Your task to perform on an android device: turn off javascript in the chrome app Image 0: 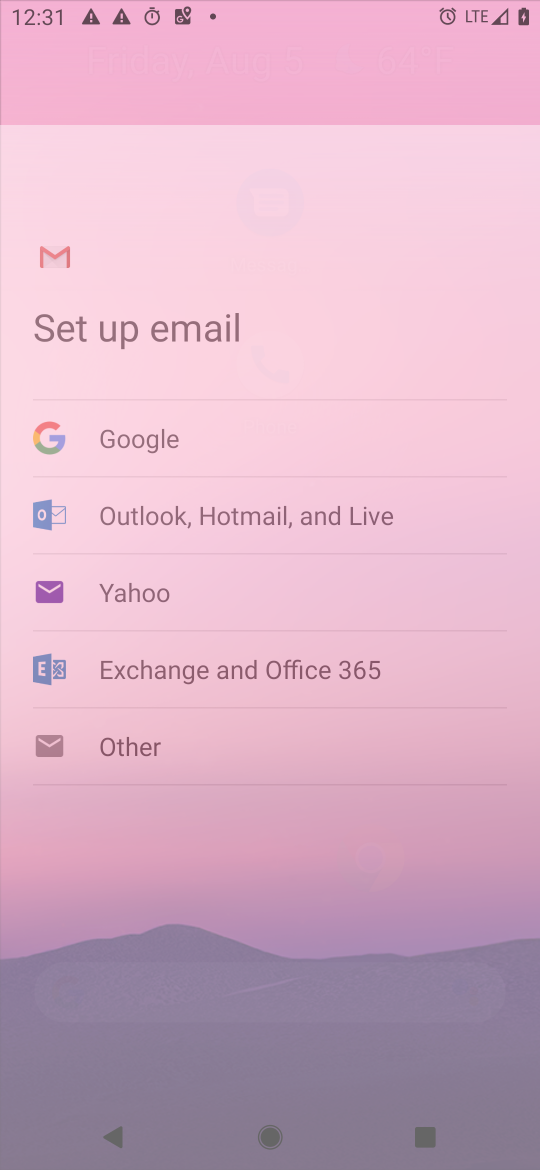
Step 0: click (358, 298)
Your task to perform on an android device: turn off javascript in the chrome app Image 1: 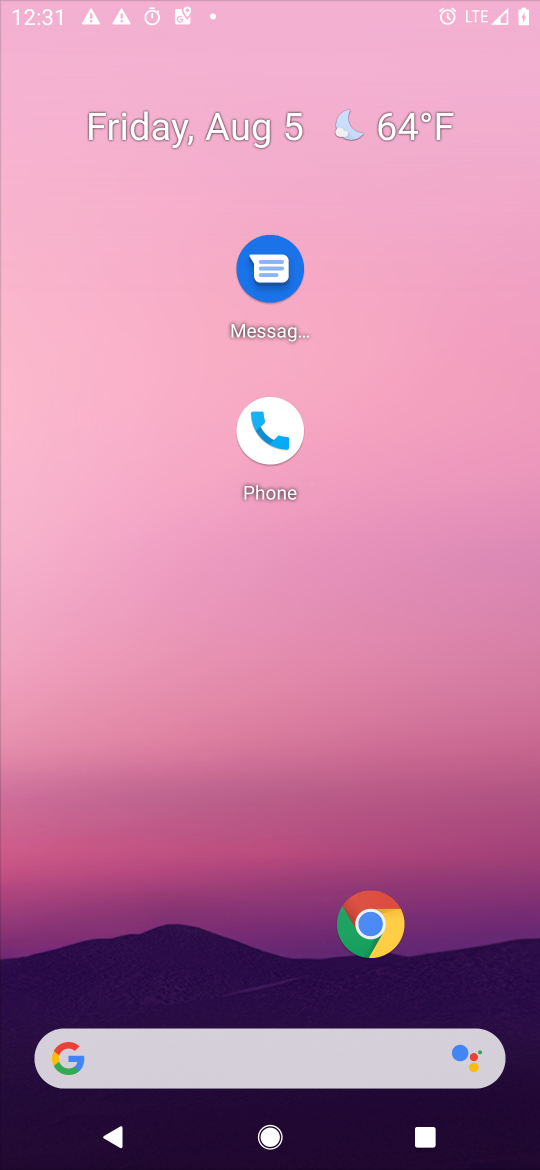
Step 1: drag from (292, 935) to (342, 395)
Your task to perform on an android device: turn off javascript in the chrome app Image 2: 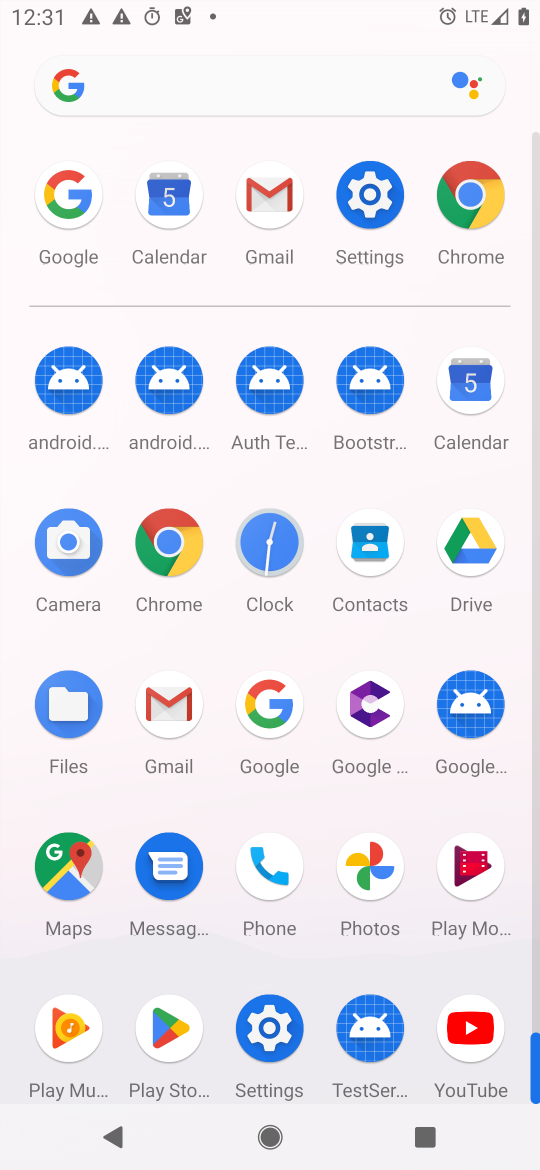
Step 2: click (167, 539)
Your task to perform on an android device: turn off javascript in the chrome app Image 3: 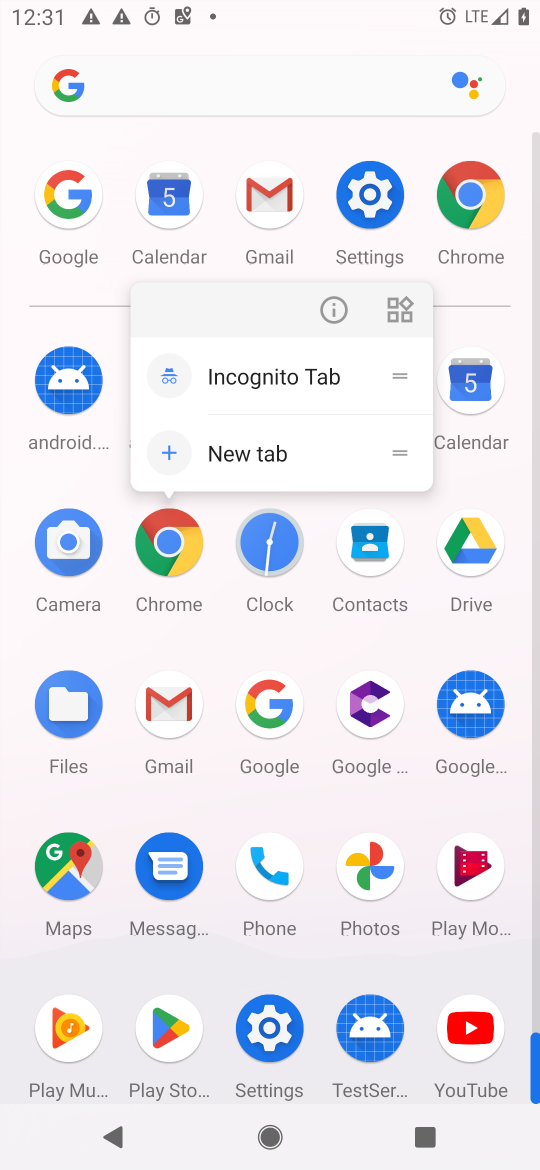
Step 3: click (323, 312)
Your task to perform on an android device: turn off javascript in the chrome app Image 4: 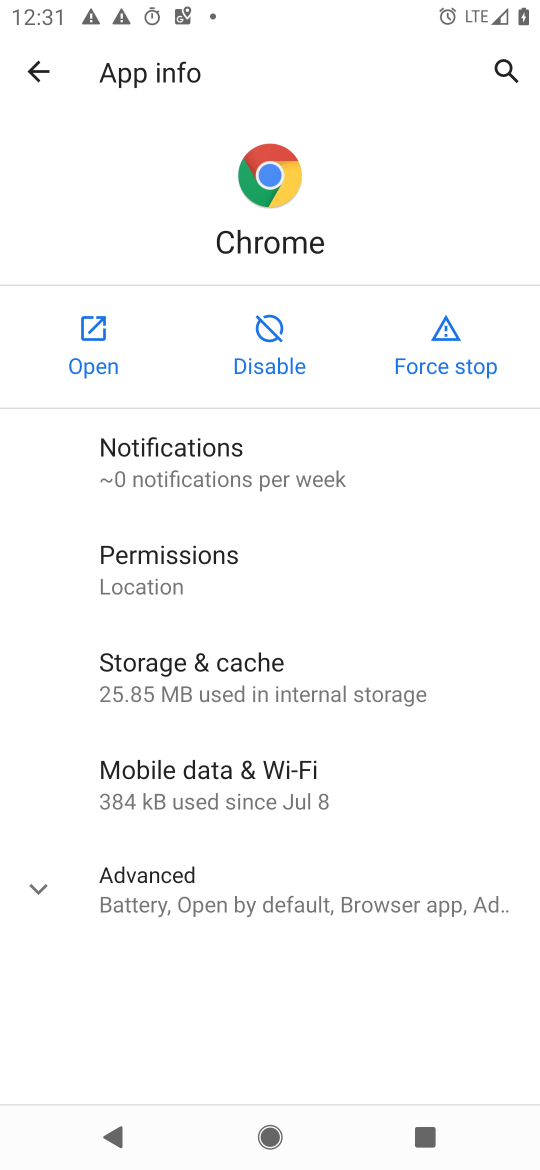
Step 4: click (91, 327)
Your task to perform on an android device: turn off javascript in the chrome app Image 5: 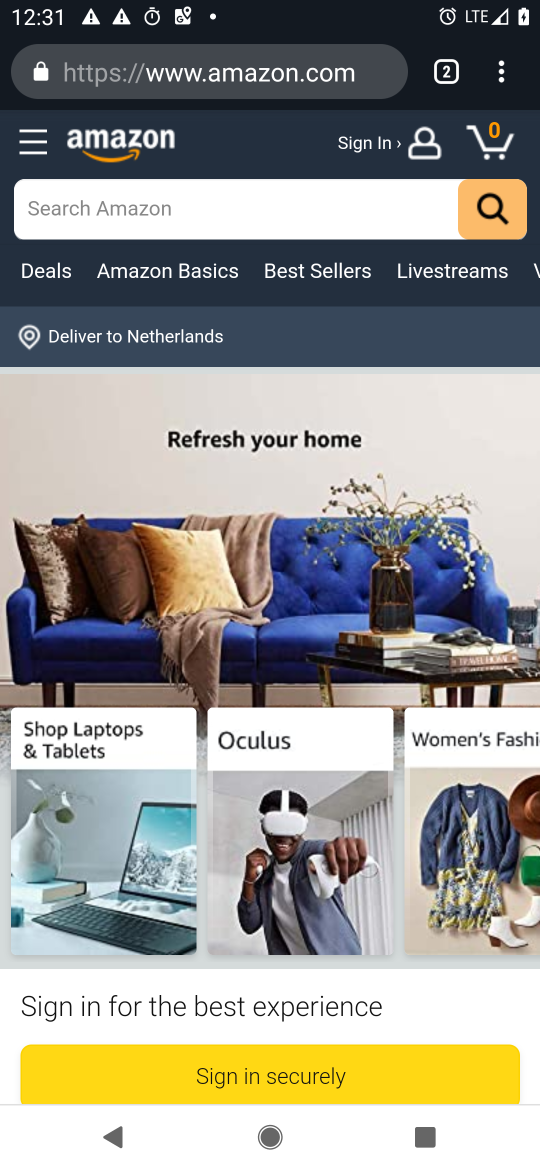
Step 5: drag from (504, 76) to (276, 878)
Your task to perform on an android device: turn off javascript in the chrome app Image 6: 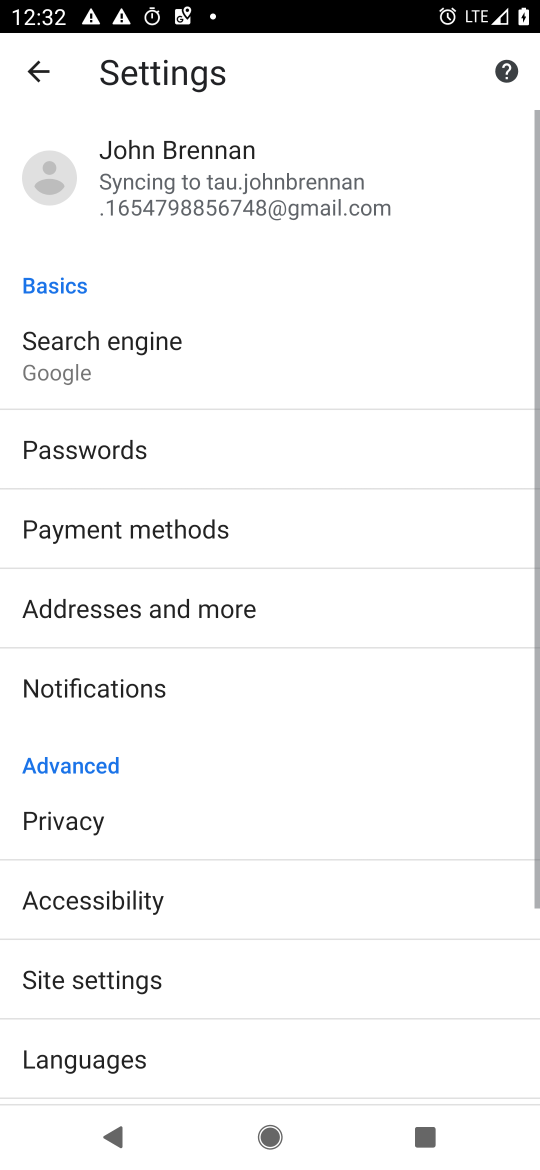
Step 6: drag from (315, 918) to (295, 306)
Your task to perform on an android device: turn off javascript in the chrome app Image 7: 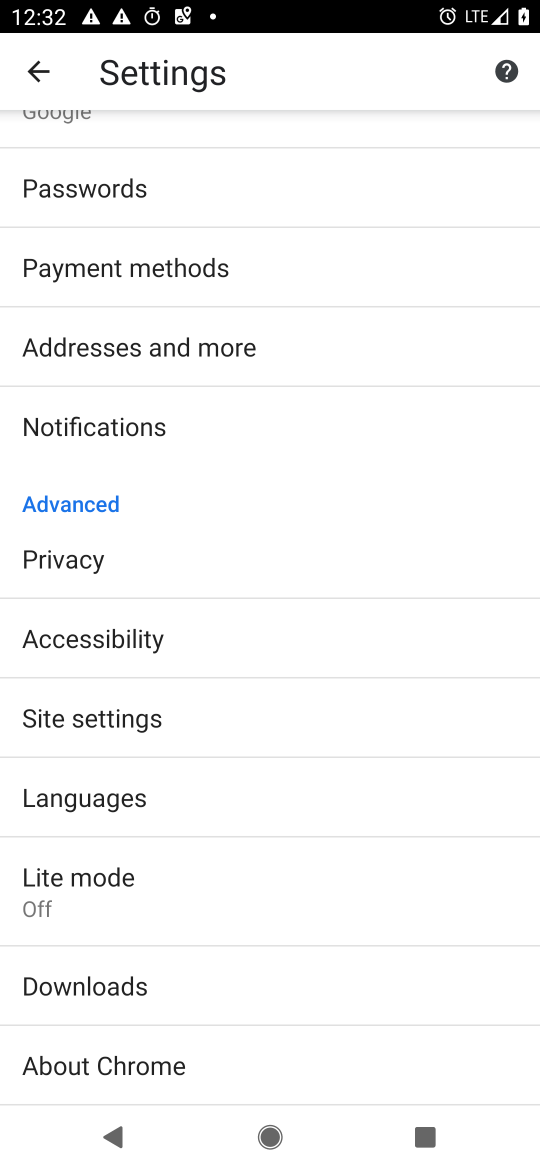
Step 7: click (155, 728)
Your task to perform on an android device: turn off javascript in the chrome app Image 8: 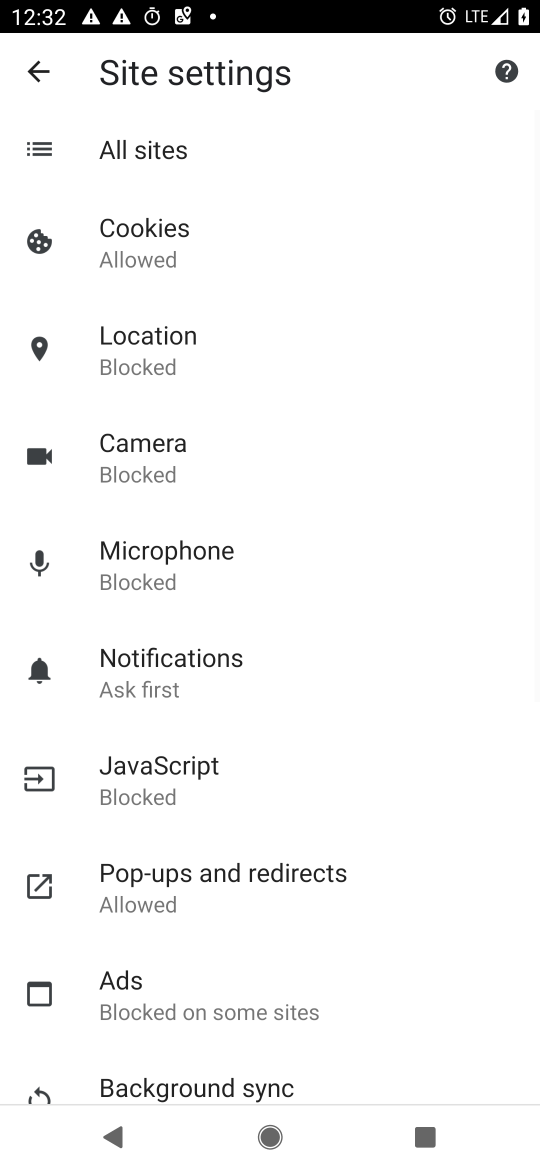
Step 8: click (192, 779)
Your task to perform on an android device: turn off javascript in the chrome app Image 9: 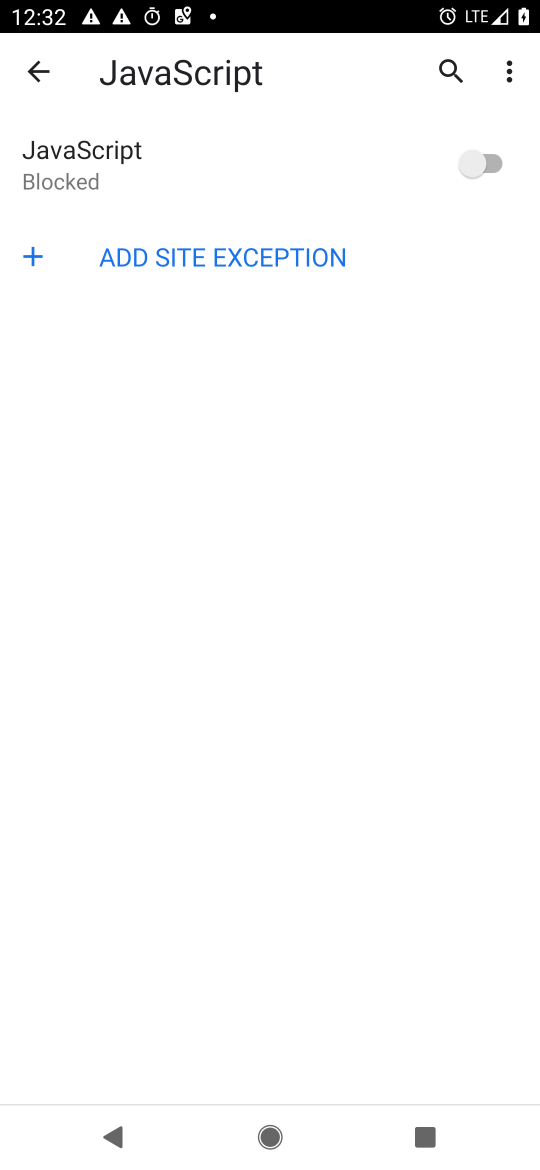
Step 9: task complete